Your task to perform on an android device: visit the assistant section in the google photos Image 0: 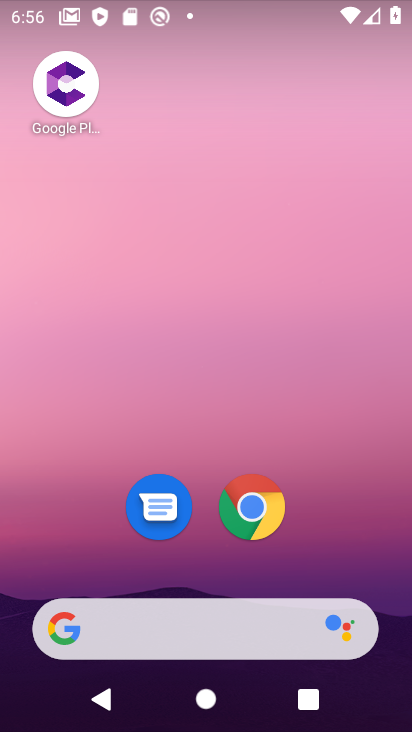
Step 0: drag from (265, 660) to (197, 154)
Your task to perform on an android device: visit the assistant section in the google photos Image 1: 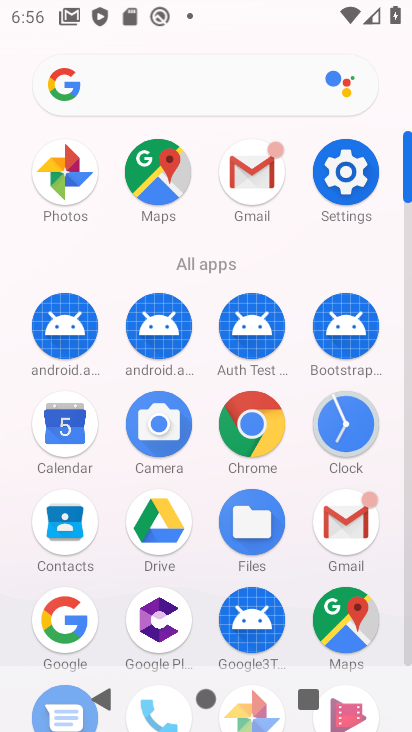
Step 1: drag from (204, 591) to (235, 469)
Your task to perform on an android device: visit the assistant section in the google photos Image 2: 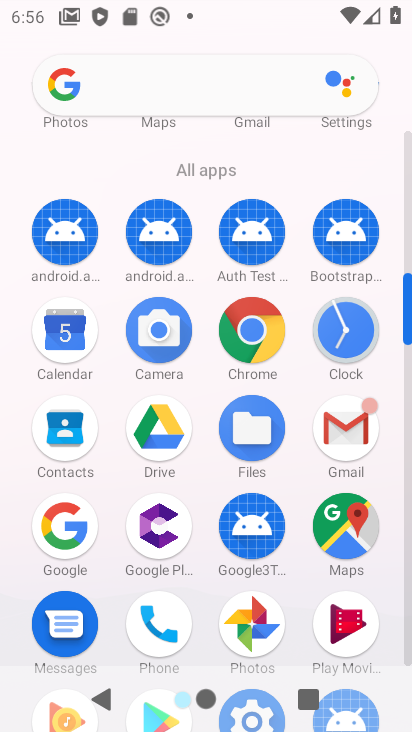
Step 2: click (262, 624)
Your task to perform on an android device: visit the assistant section in the google photos Image 3: 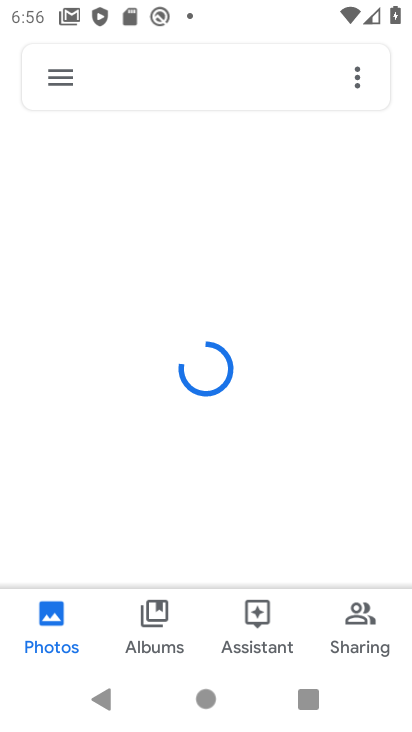
Step 3: click (243, 614)
Your task to perform on an android device: visit the assistant section in the google photos Image 4: 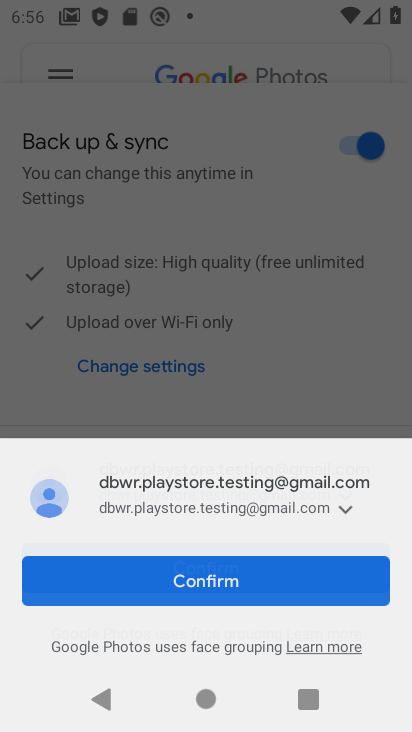
Step 4: task complete